Your task to perform on an android device: open device folders in google photos Image 0: 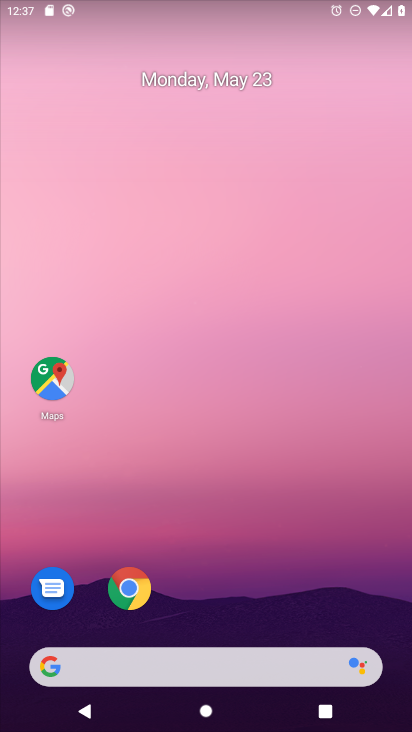
Step 0: drag from (263, 691) to (196, 34)
Your task to perform on an android device: open device folders in google photos Image 1: 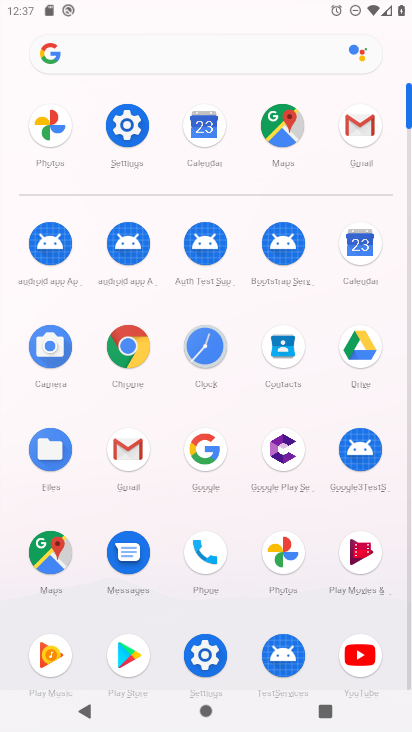
Step 1: click (41, 137)
Your task to perform on an android device: open device folders in google photos Image 2: 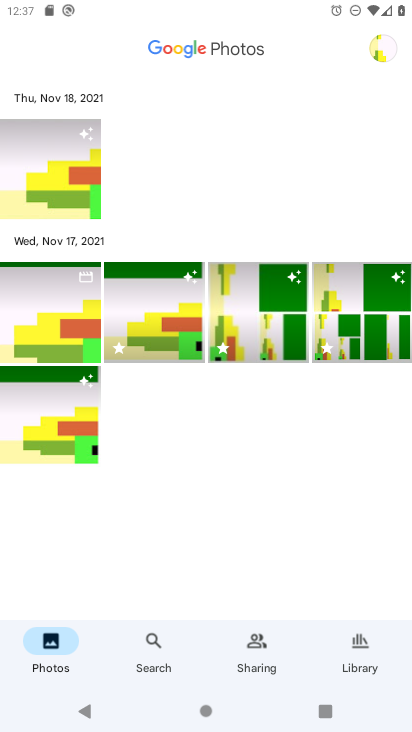
Step 2: click (147, 644)
Your task to perform on an android device: open device folders in google photos Image 3: 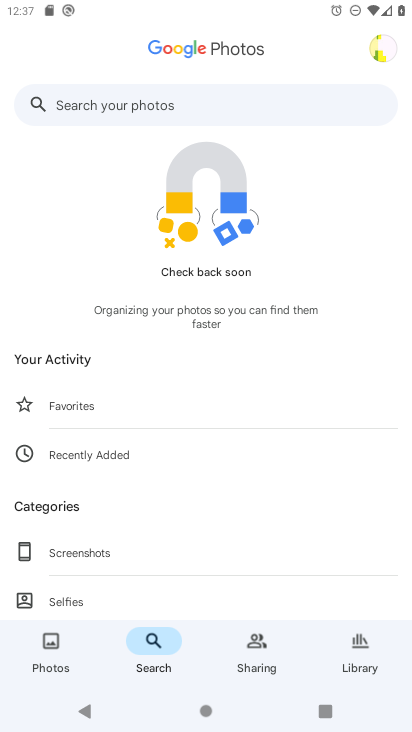
Step 3: click (98, 121)
Your task to perform on an android device: open device folders in google photos Image 4: 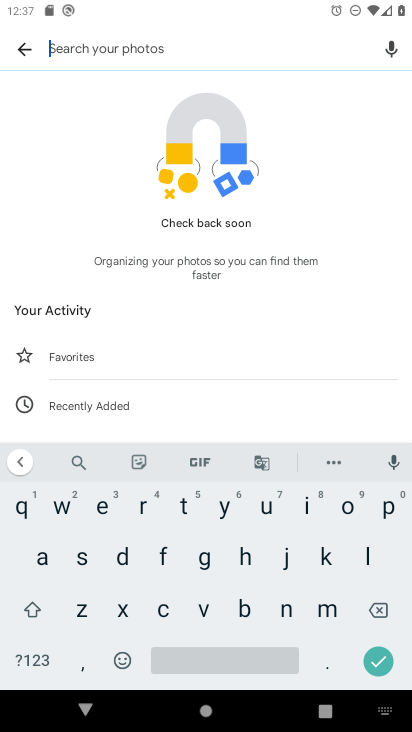
Step 4: click (126, 553)
Your task to perform on an android device: open device folders in google photos Image 5: 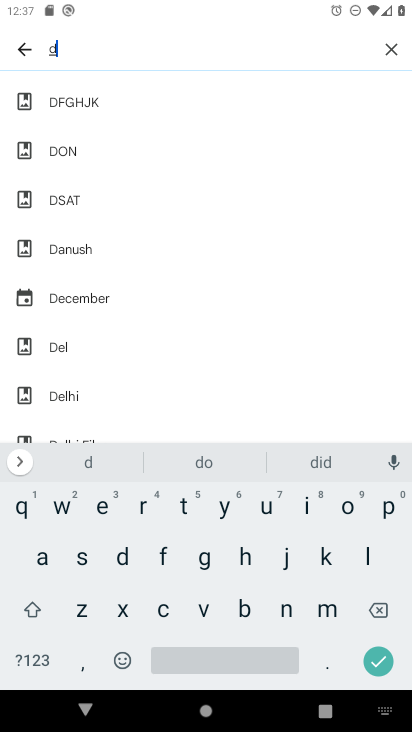
Step 5: click (98, 508)
Your task to perform on an android device: open device folders in google photos Image 6: 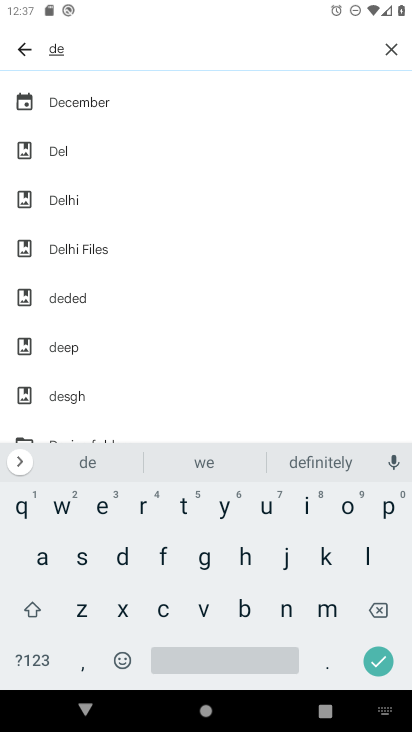
Step 6: click (204, 613)
Your task to perform on an android device: open device folders in google photos Image 7: 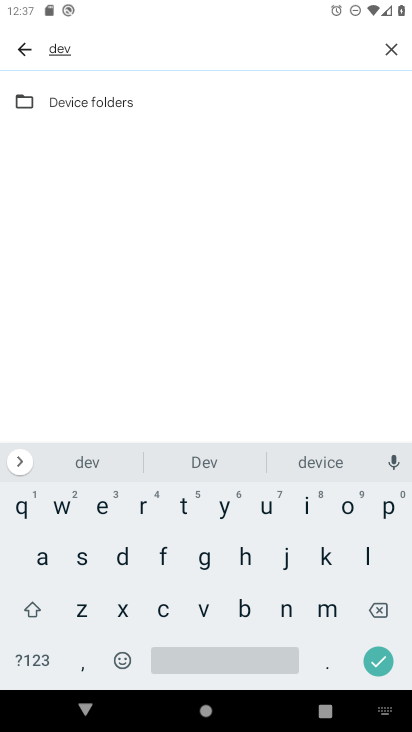
Step 7: click (305, 501)
Your task to perform on an android device: open device folders in google photos Image 8: 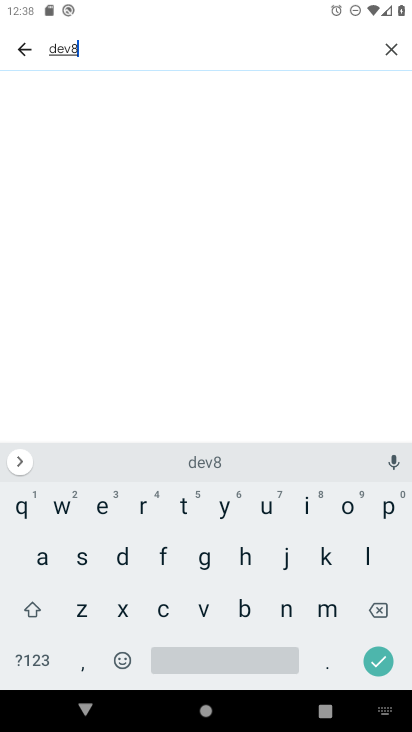
Step 8: click (71, 103)
Your task to perform on an android device: open device folders in google photos Image 9: 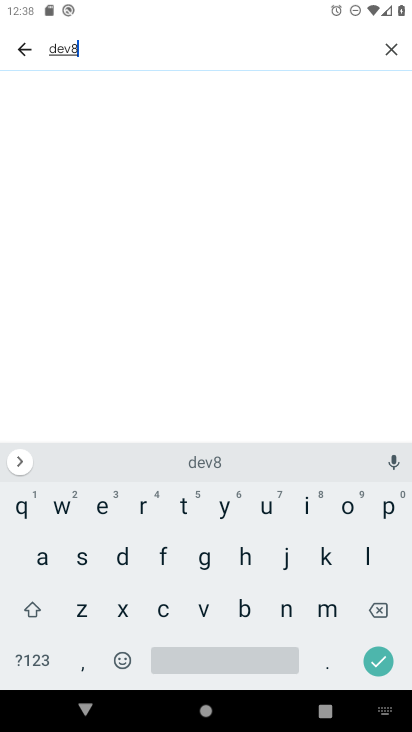
Step 9: click (367, 610)
Your task to perform on an android device: open device folders in google photos Image 10: 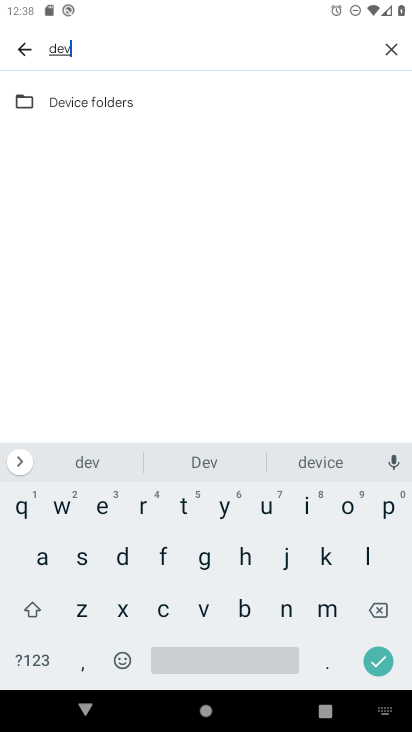
Step 10: click (63, 110)
Your task to perform on an android device: open device folders in google photos Image 11: 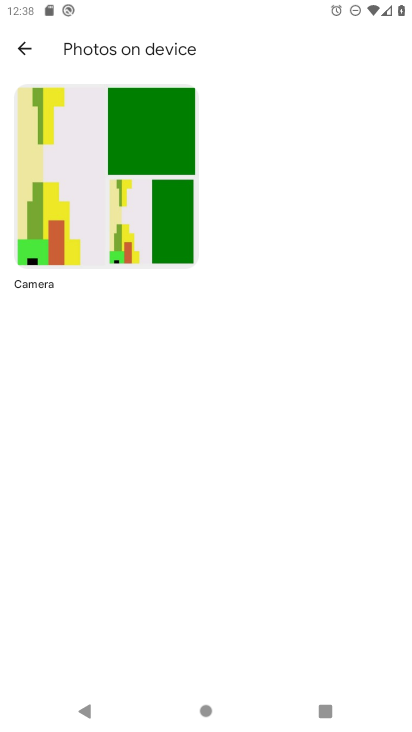
Step 11: task complete